Your task to perform on an android device: open device folders in google photos Image 0: 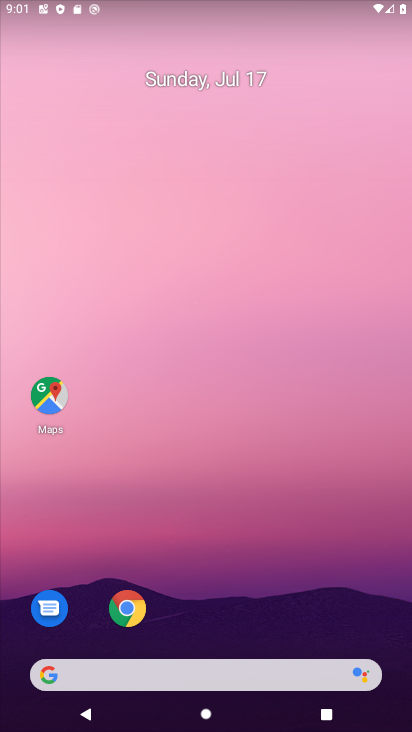
Step 0: drag from (208, 667) to (325, 150)
Your task to perform on an android device: open device folders in google photos Image 1: 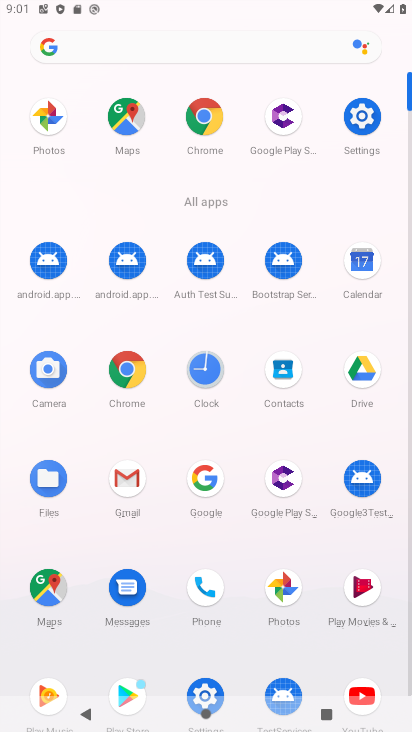
Step 1: click (284, 588)
Your task to perform on an android device: open device folders in google photos Image 2: 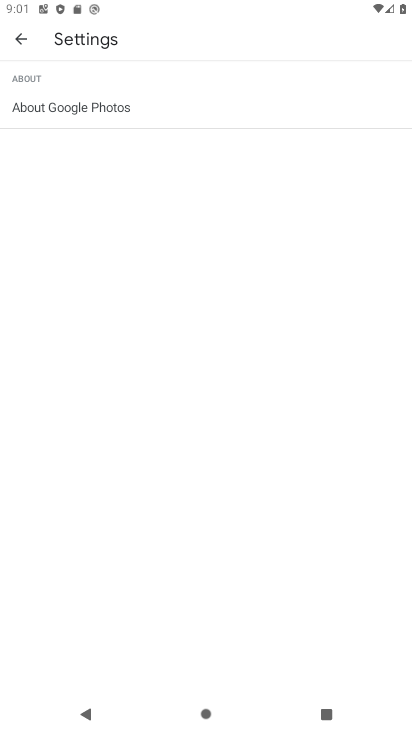
Step 2: press back button
Your task to perform on an android device: open device folders in google photos Image 3: 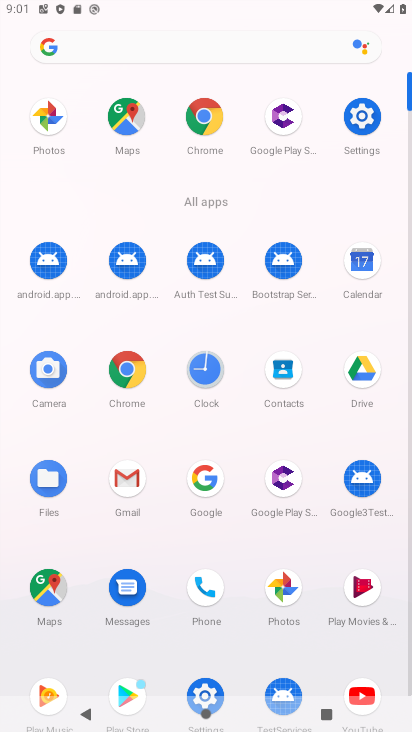
Step 3: click (282, 588)
Your task to perform on an android device: open device folders in google photos Image 4: 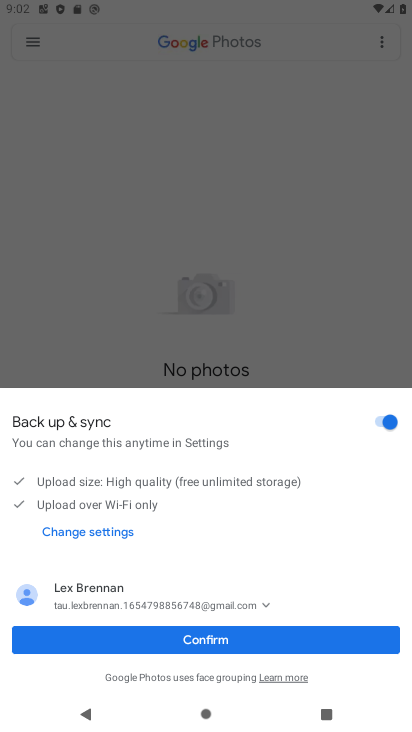
Step 4: click (217, 641)
Your task to perform on an android device: open device folders in google photos Image 5: 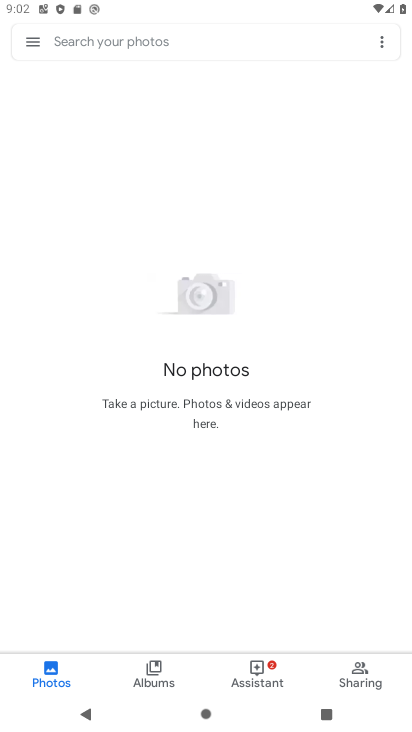
Step 5: click (33, 43)
Your task to perform on an android device: open device folders in google photos Image 6: 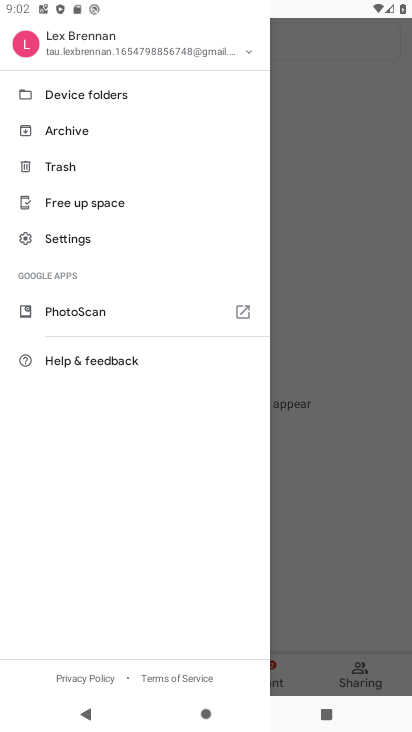
Step 6: click (116, 90)
Your task to perform on an android device: open device folders in google photos Image 7: 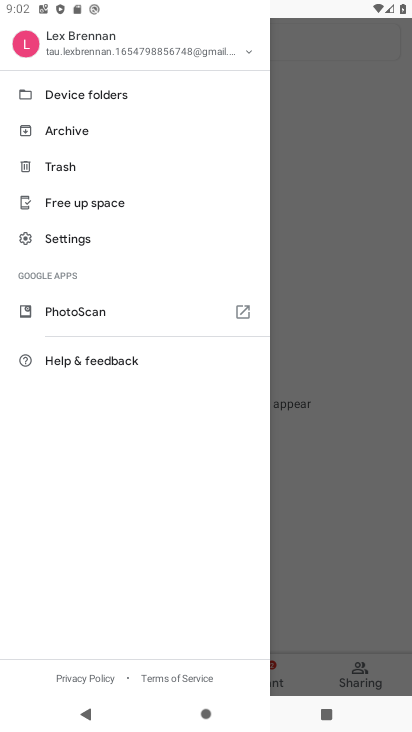
Step 7: click (92, 98)
Your task to perform on an android device: open device folders in google photos Image 8: 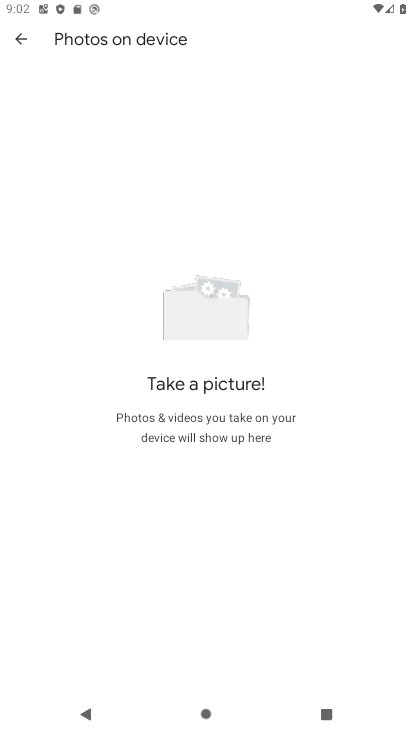
Step 8: task complete